Your task to perform on an android device: turn off smart reply in the gmail app Image 0: 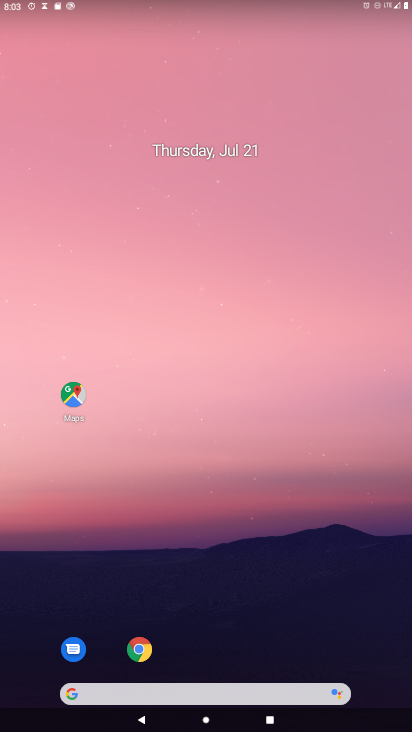
Step 0: drag from (359, 619) to (124, 24)
Your task to perform on an android device: turn off smart reply in the gmail app Image 1: 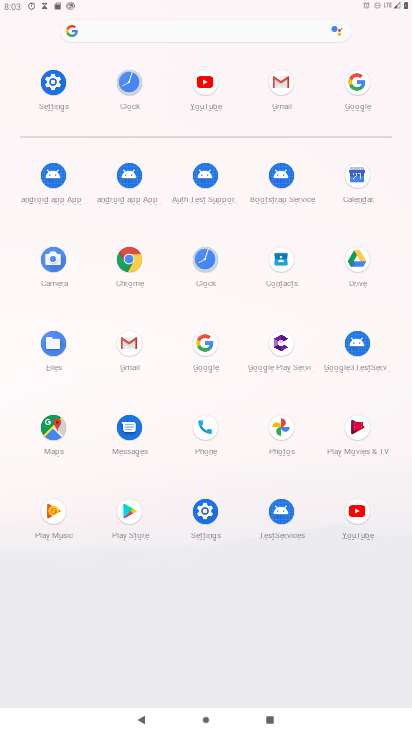
Step 1: click (129, 344)
Your task to perform on an android device: turn off smart reply in the gmail app Image 2: 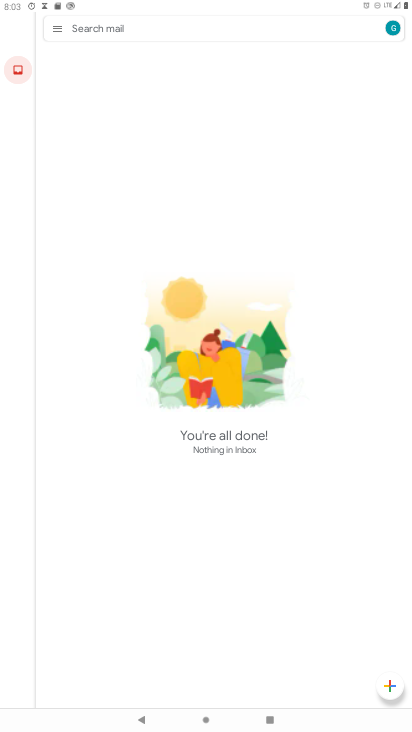
Step 2: click (61, 38)
Your task to perform on an android device: turn off smart reply in the gmail app Image 3: 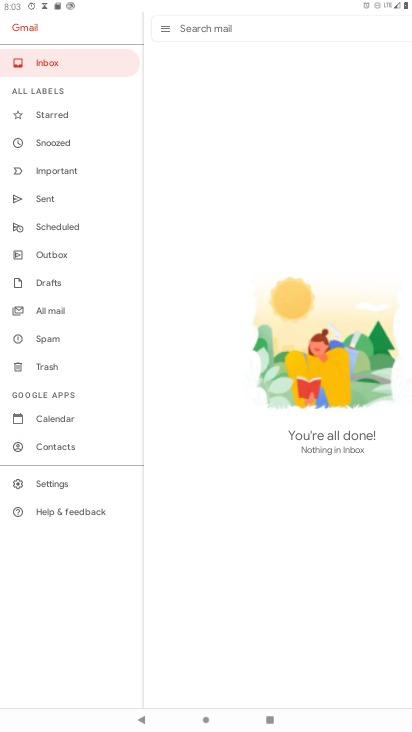
Step 3: click (60, 487)
Your task to perform on an android device: turn off smart reply in the gmail app Image 4: 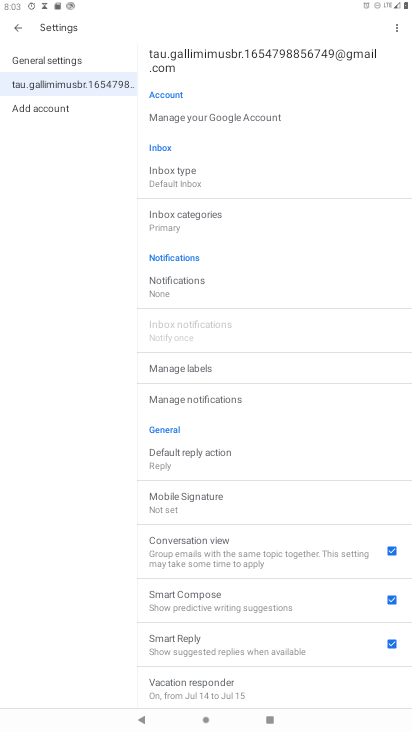
Step 4: click (273, 641)
Your task to perform on an android device: turn off smart reply in the gmail app Image 5: 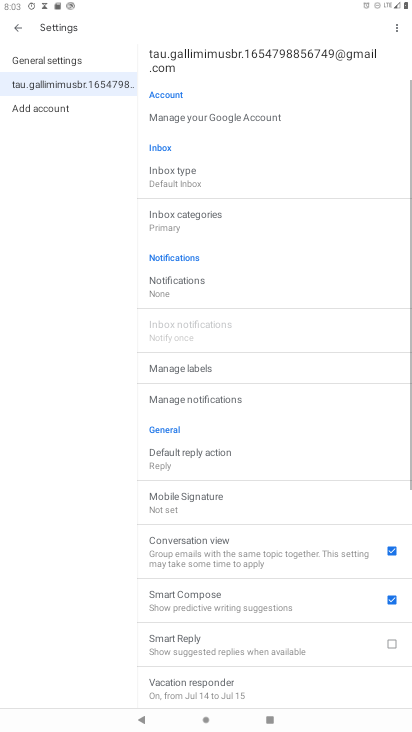
Step 5: task complete